Your task to perform on an android device: change the upload size in google photos Image 0: 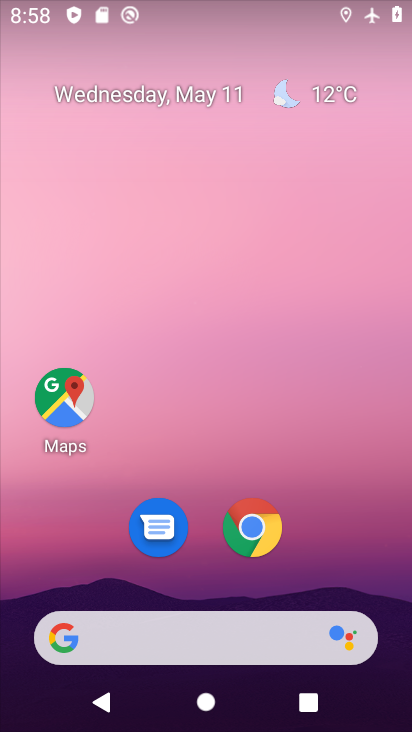
Step 0: drag from (340, 514) to (305, 153)
Your task to perform on an android device: change the upload size in google photos Image 1: 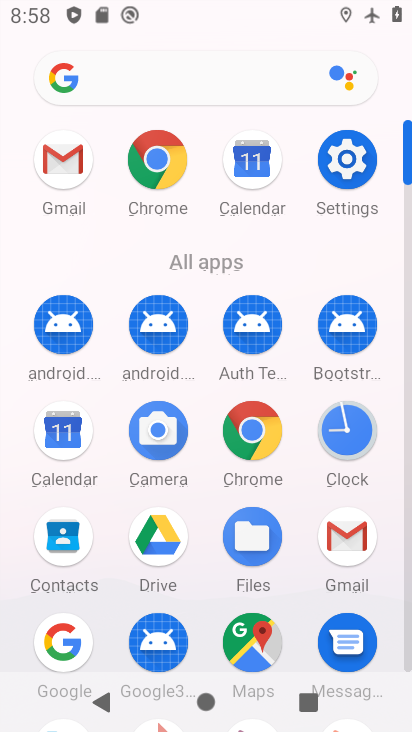
Step 1: drag from (317, 594) to (307, 221)
Your task to perform on an android device: change the upload size in google photos Image 2: 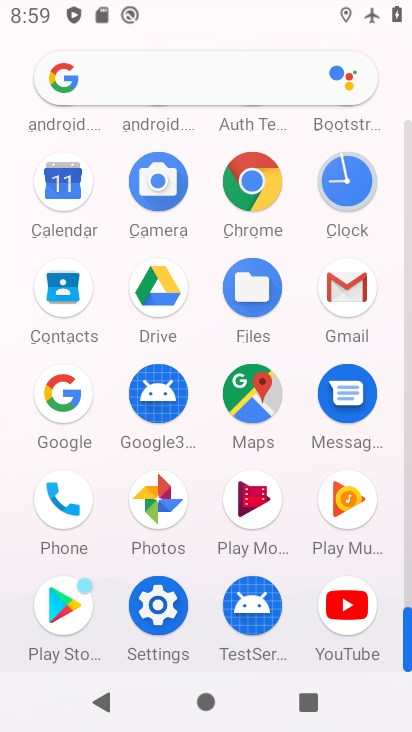
Step 2: click (143, 515)
Your task to perform on an android device: change the upload size in google photos Image 3: 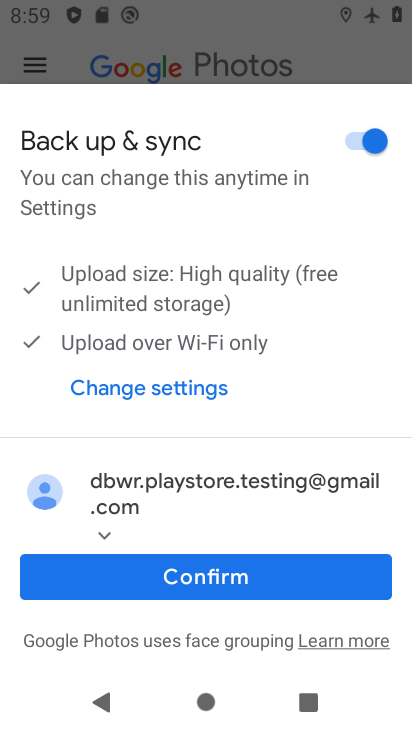
Step 3: click (256, 581)
Your task to perform on an android device: change the upload size in google photos Image 4: 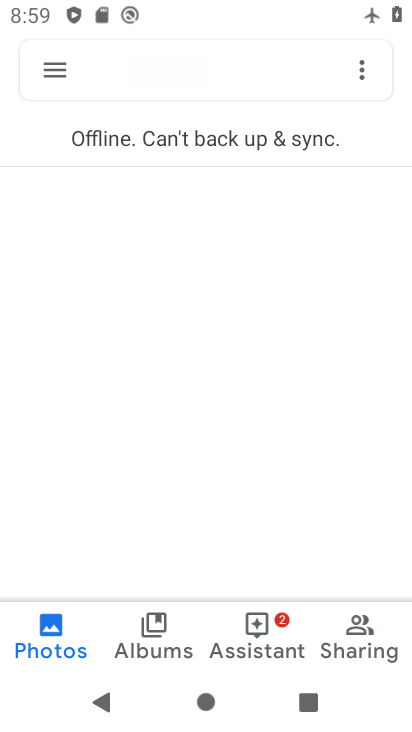
Step 4: click (55, 60)
Your task to perform on an android device: change the upload size in google photos Image 5: 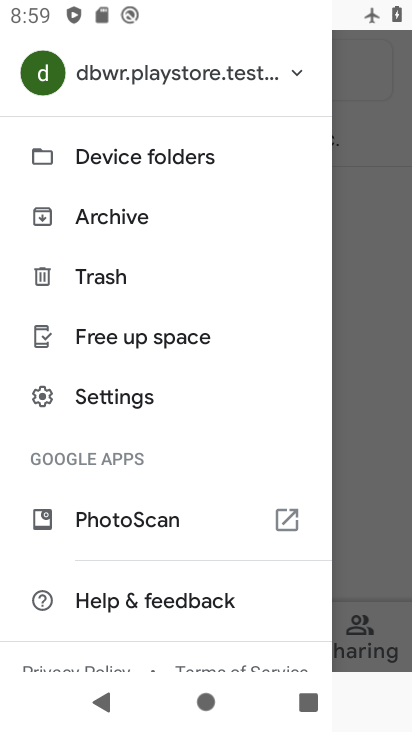
Step 5: drag from (168, 566) to (218, 246)
Your task to perform on an android device: change the upload size in google photos Image 6: 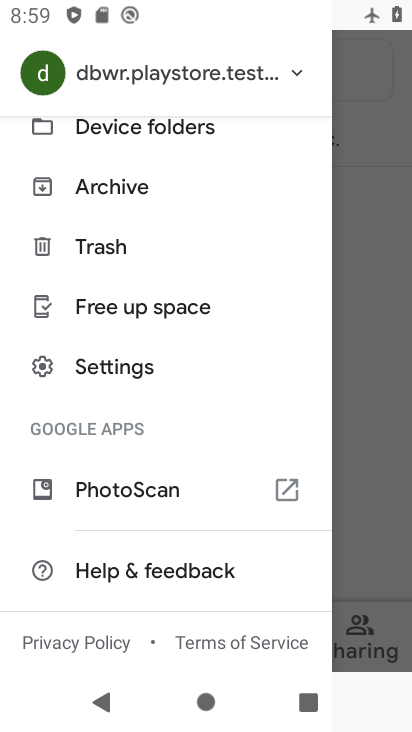
Step 6: click (137, 373)
Your task to perform on an android device: change the upload size in google photos Image 7: 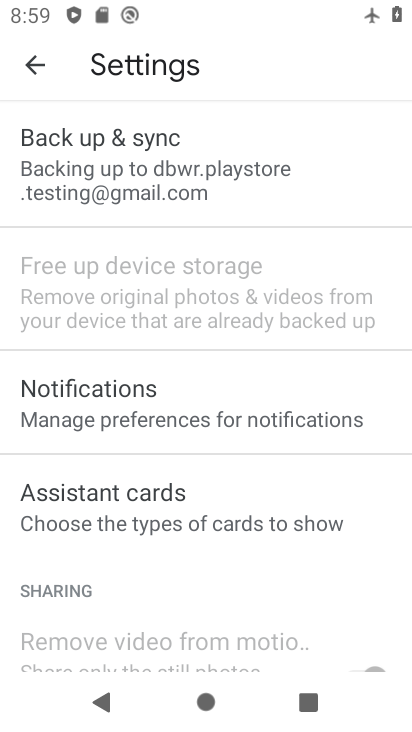
Step 7: click (205, 168)
Your task to perform on an android device: change the upload size in google photos Image 8: 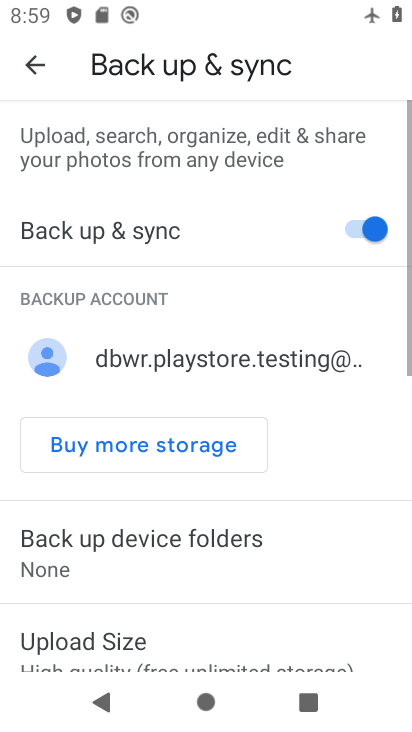
Step 8: drag from (217, 577) to (254, 270)
Your task to perform on an android device: change the upload size in google photos Image 9: 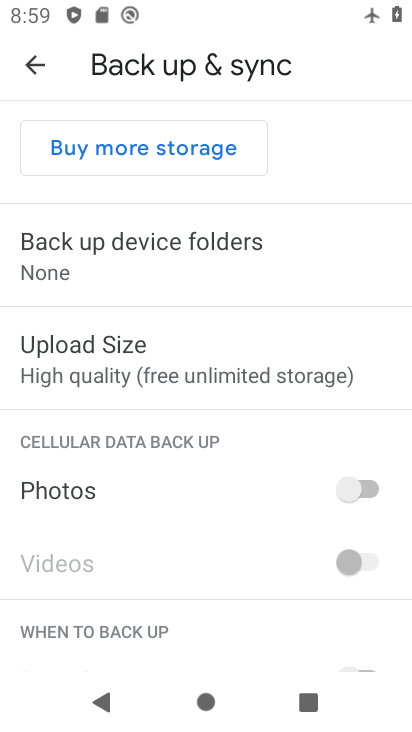
Step 9: click (218, 356)
Your task to perform on an android device: change the upload size in google photos Image 10: 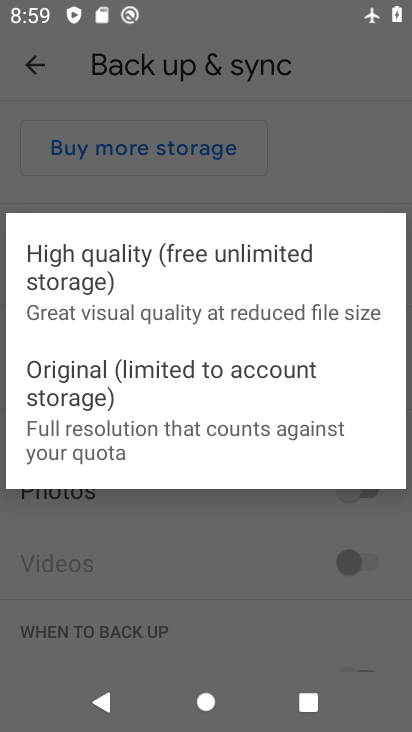
Step 10: click (164, 289)
Your task to perform on an android device: change the upload size in google photos Image 11: 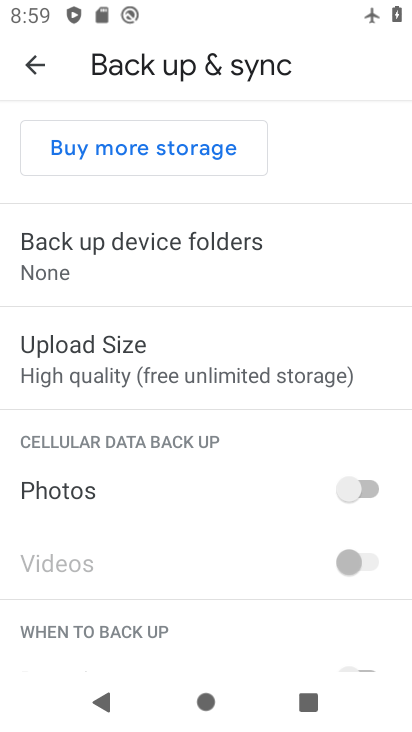
Step 11: click (154, 364)
Your task to perform on an android device: change the upload size in google photos Image 12: 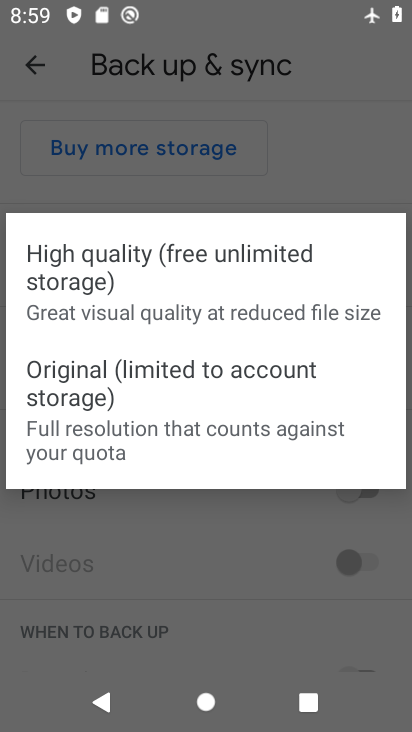
Step 12: click (116, 422)
Your task to perform on an android device: change the upload size in google photos Image 13: 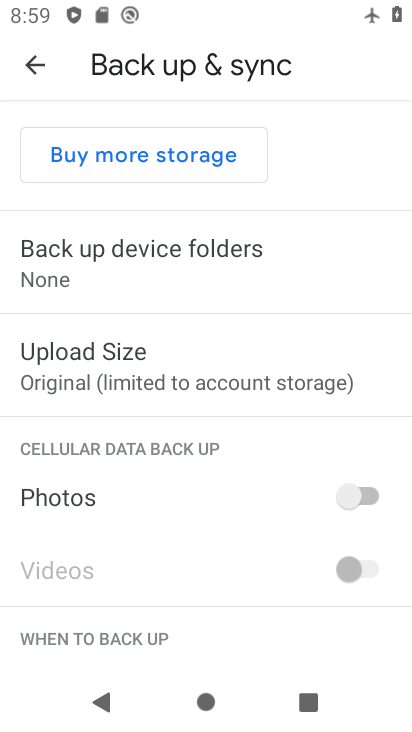
Step 13: task complete